Your task to perform on an android device: What's the weather going to be tomorrow? Image 0: 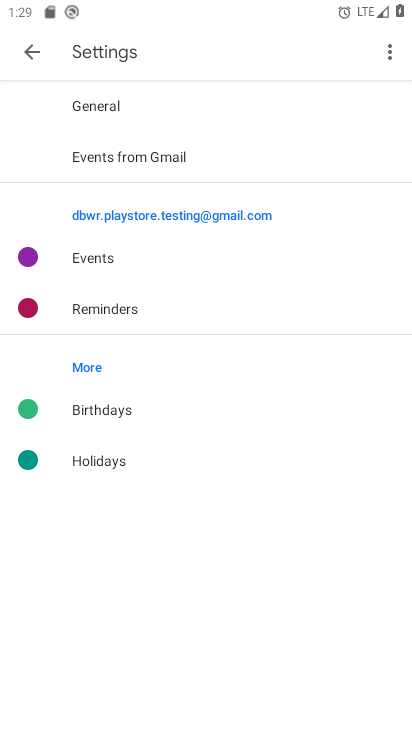
Step 0: press home button
Your task to perform on an android device: What's the weather going to be tomorrow? Image 1: 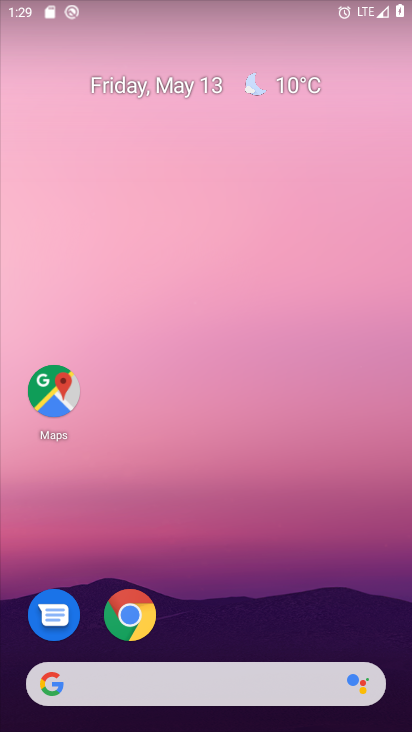
Step 1: click (292, 79)
Your task to perform on an android device: What's the weather going to be tomorrow? Image 2: 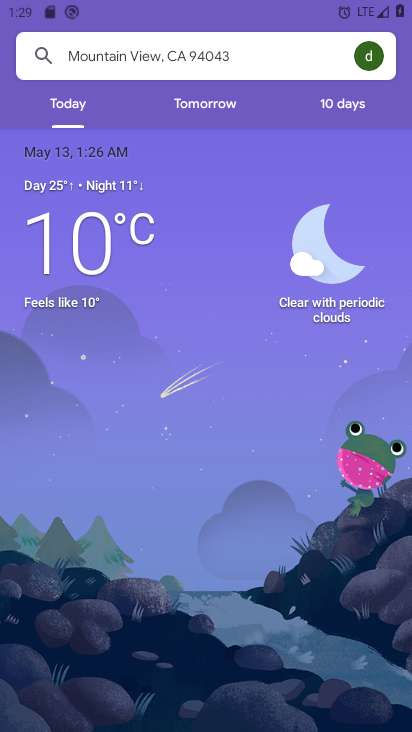
Step 2: click (200, 97)
Your task to perform on an android device: What's the weather going to be tomorrow? Image 3: 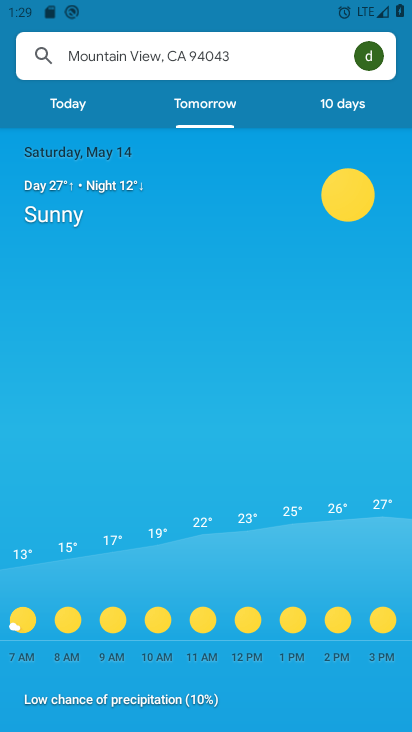
Step 3: task complete